Your task to perform on an android device: snooze an email in the gmail app Image 0: 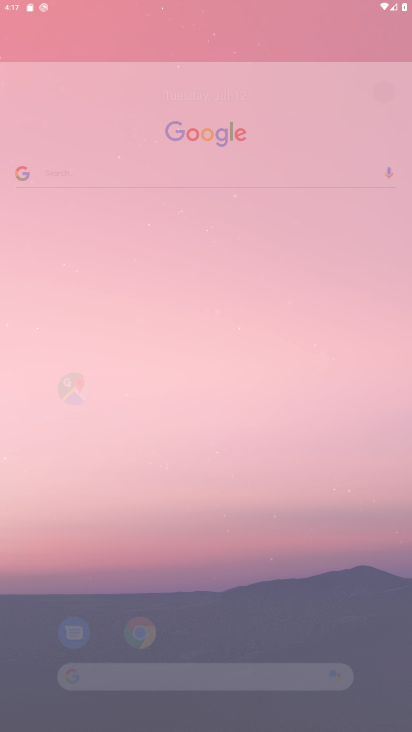
Step 0: click (268, 7)
Your task to perform on an android device: snooze an email in the gmail app Image 1: 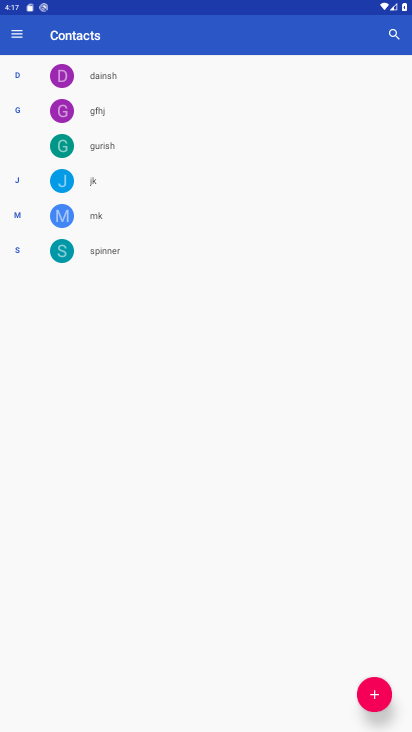
Step 1: press home button
Your task to perform on an android device: snooze an email in the gmail app Image 2: 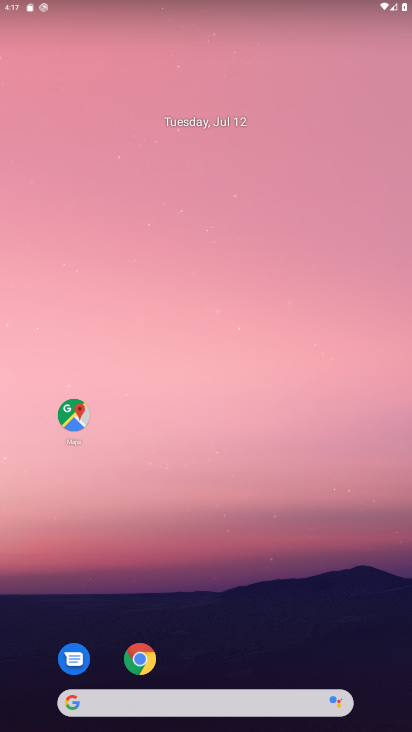
Step 2: drag from (258, 173) to (344, 40)
Your task to perform on an android device: snooze an email in the gmail app Image 3: 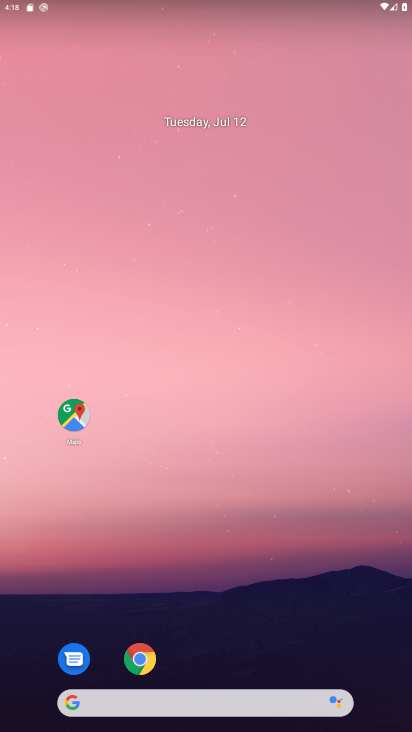
Step 3: drag from (37, 713) to (295, 41)
Your task to perform on an android device: snooze an email in the gmail app Image 4: 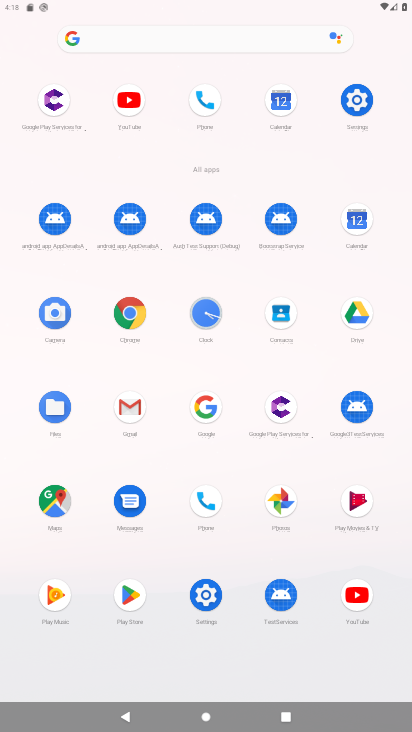
Step 4: click (133, 413)
Your task to perform on an android device: snooze an email in the gmail app Image 5: 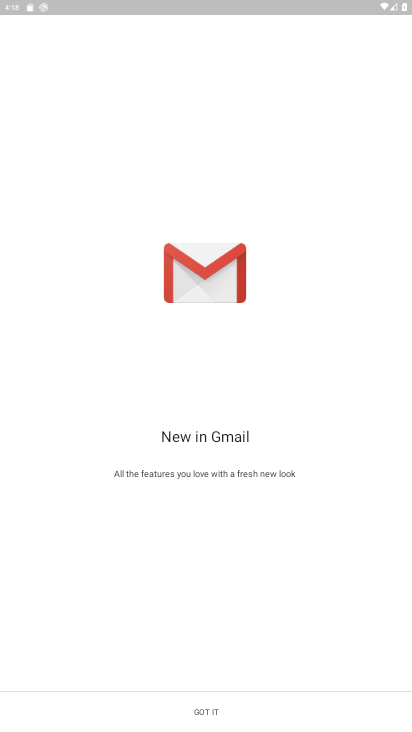
Step 5: click (197, 707)
Your task to perform on an android device: snooze an email in the gmail app Image 6: 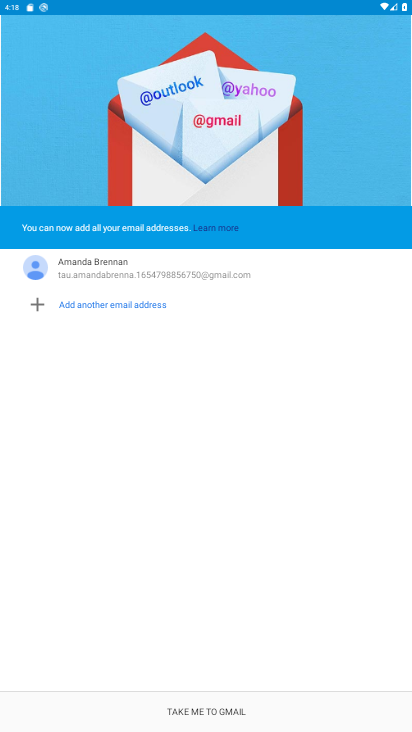
Step 6: click (207, 713)
Your task to perform on an android device: snooze an email in the gmail app Image 7: 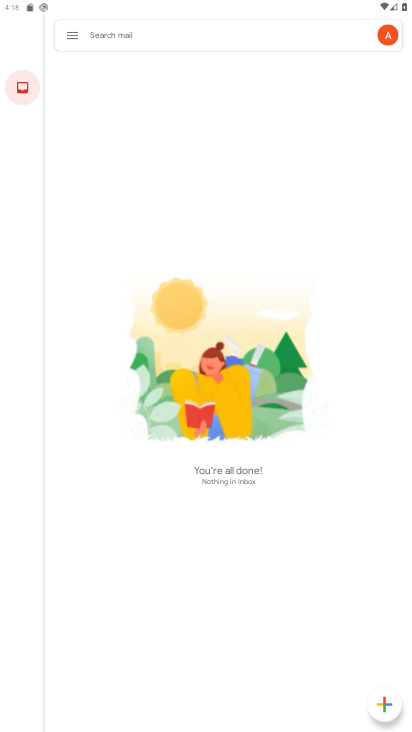
Step 7: click (64, 37)
Your task to perform on an android device: snooze an email in the gmail app Image 8: 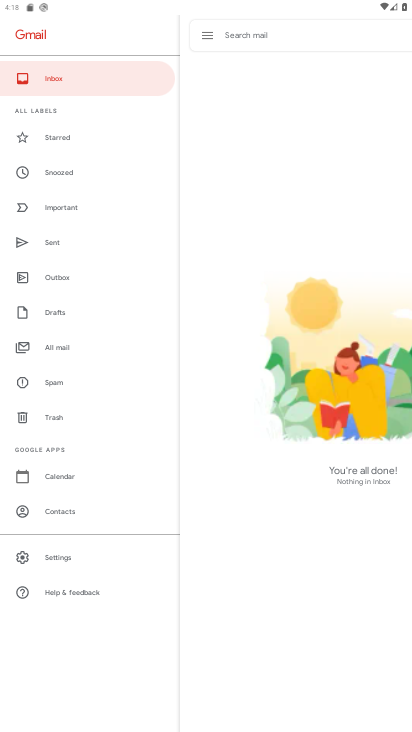
Step 8: click (74, 164)
Your task to perform on an android device: snooze an email in the gmail app Image 9: 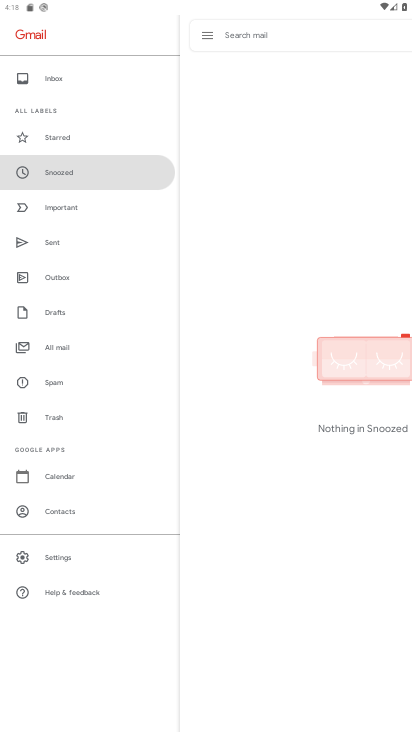
Step 9: click (80, 166)
Your task to perform on an android device: snooze an email in the gmail app Image 10: 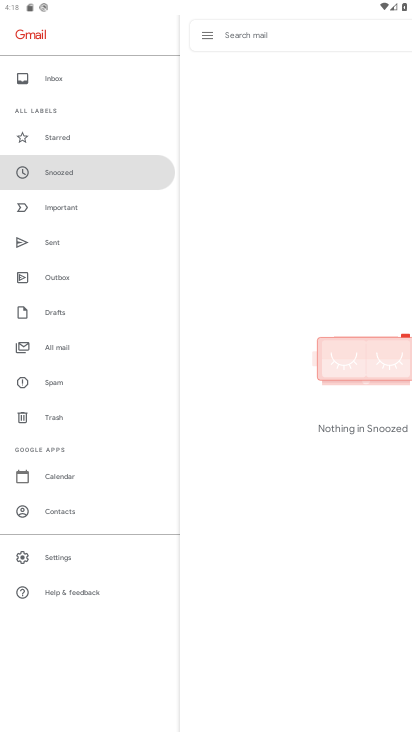
Step 10: task complete